Your task to perform on an android device: Open CNN.com Image 0: 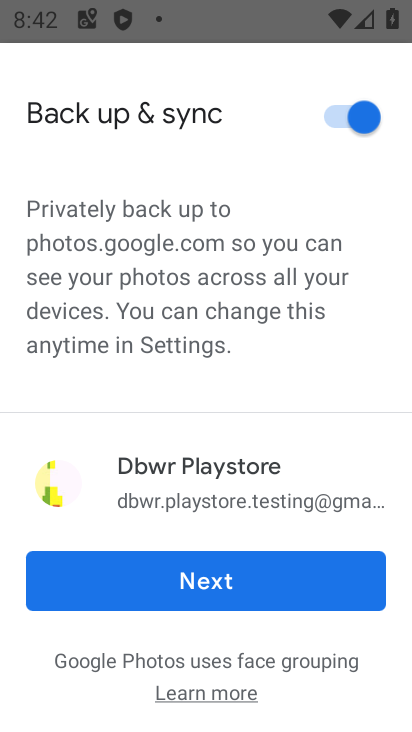
Step 0: press home button
Your task to perform on an android device: Open CNN.com Image 1: 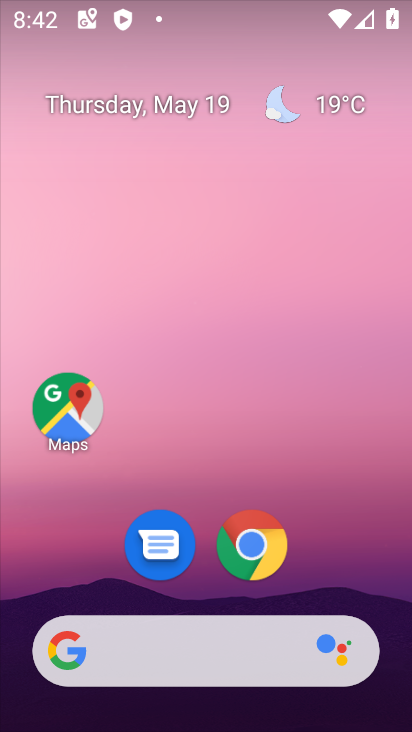
Step 1: click (238, 639)
Your task to perform on an android device: Open CNN.com Image 2: 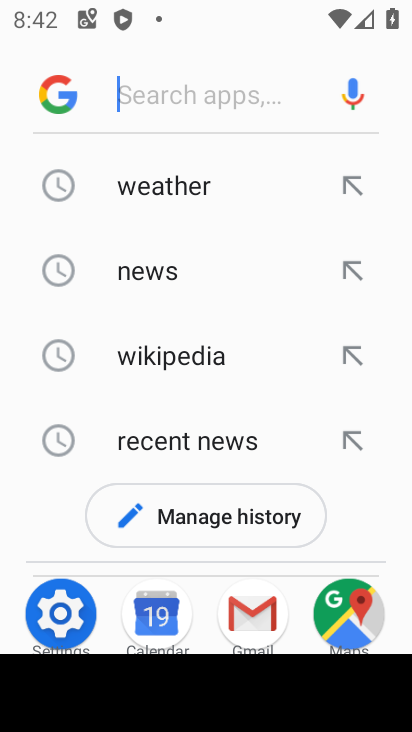
Step 2: type "cnn"
Your task to perform on an android device: Open CNN.com Image 3: 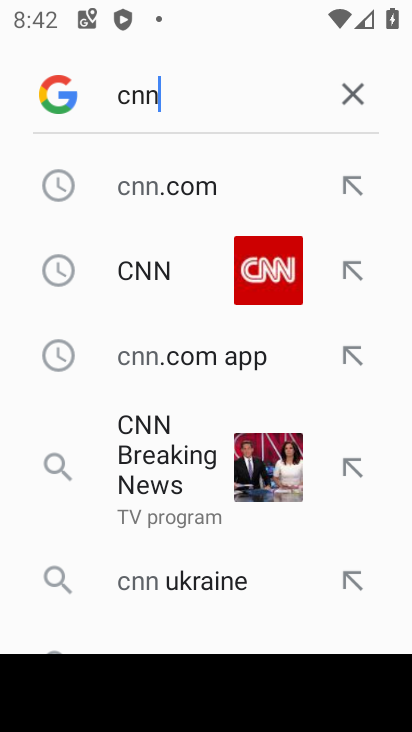
Step 3: click (155, 190)
Your task to perform on an android device: Open CNN.com Image 4: 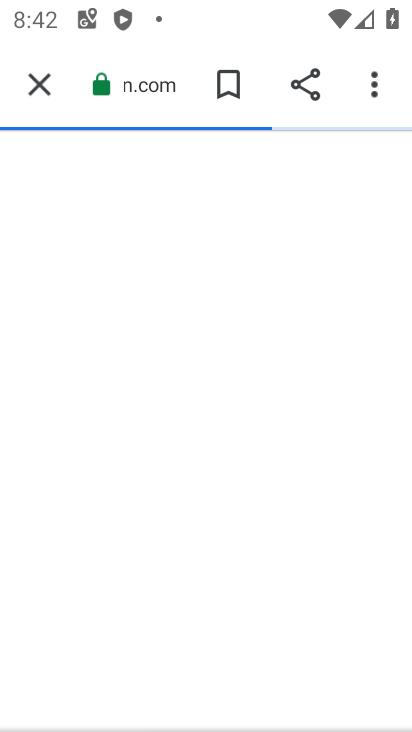
Step 4: task complete